Your task to perform on an android device: change the clock display to digital Image 0: 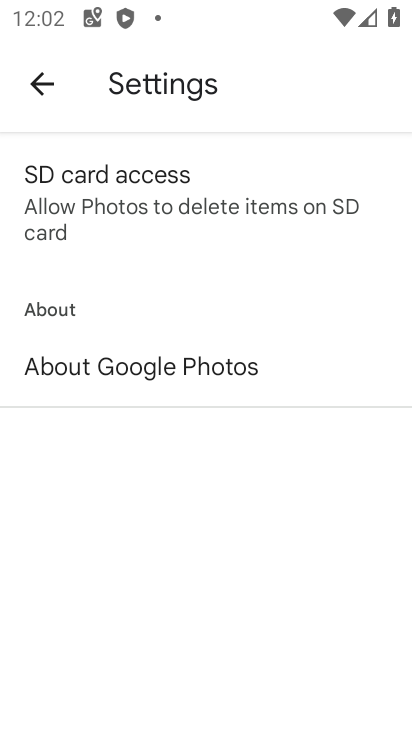
Step 0: press home button
Your task to perform on an android device: change the clock display to digital Image 1: 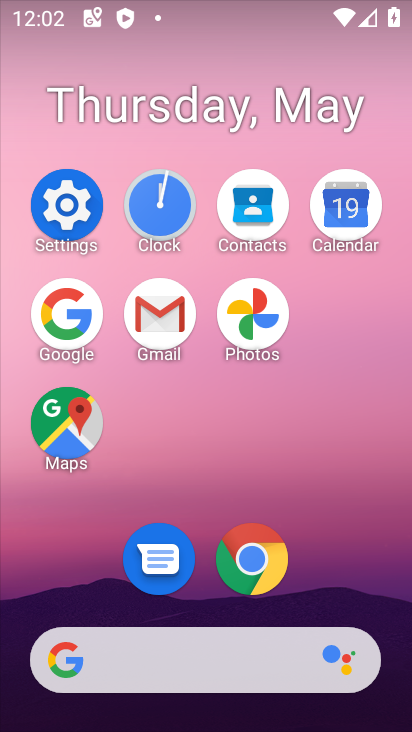
Step 1: click (171, 200)
Your task to perform on an android device: change the clock display to digital Image 2: 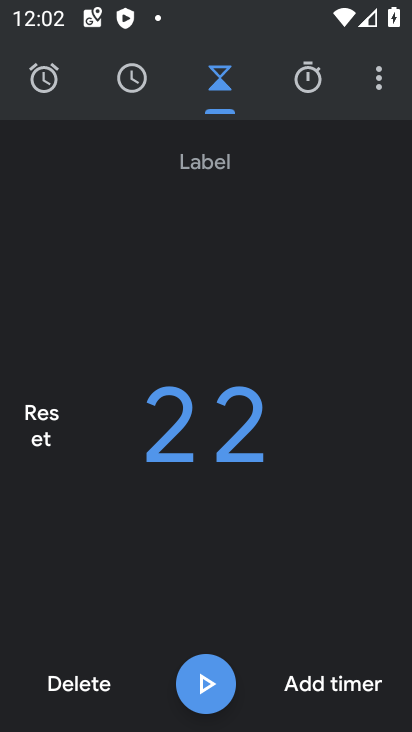
Step 2: click (363, 78)
Your task to perform on an android device: change the clock display to digital Image 3: 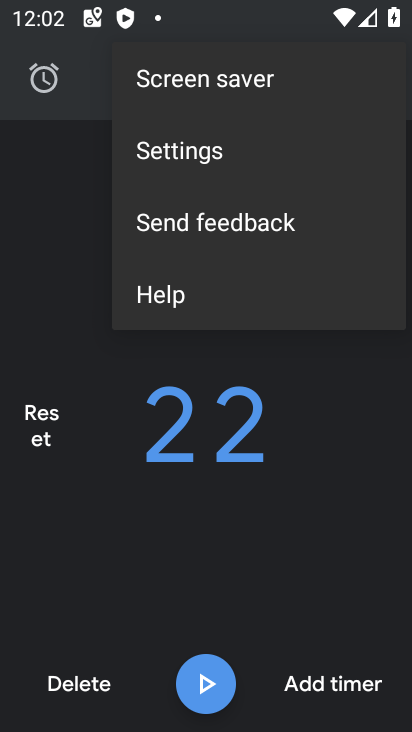
Step 3: click (187, 149)
Your task to perform on an android device: change the clock display to digital Image 4: 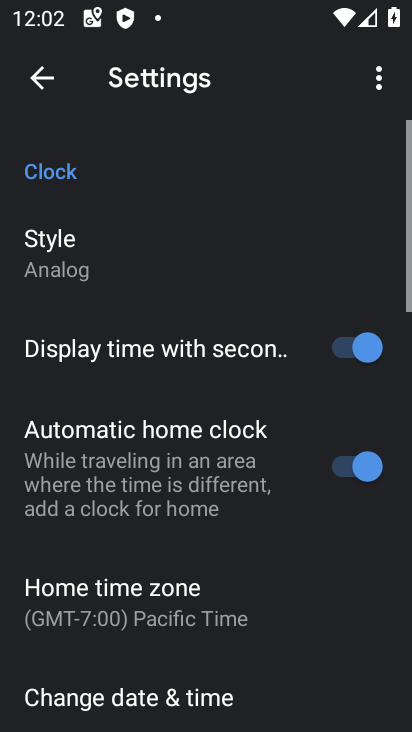
Step 4: click (100, 247)
Your task to perform on an android device: change the clock display to digital Image 5: 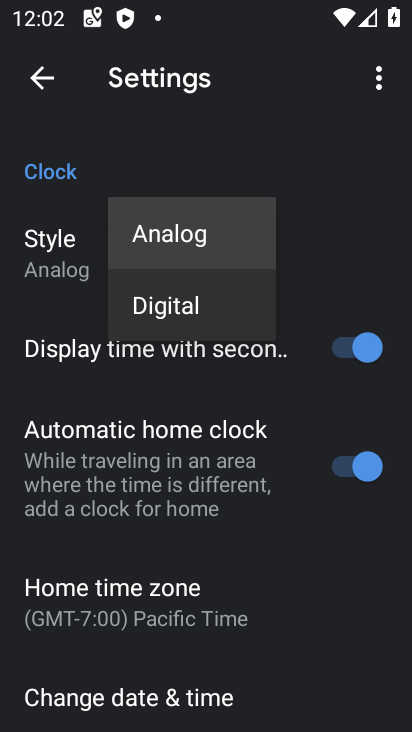
Step 5: click (153, 295)
Your task to perform on an android device: change the clock display to digital Image 6: 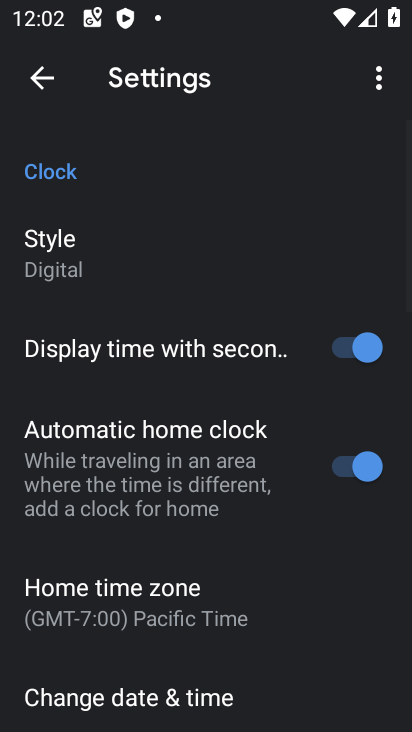
Step 6: task complete